Your task to perform on an android device: Go to calendar. Show me events next week Image 0: 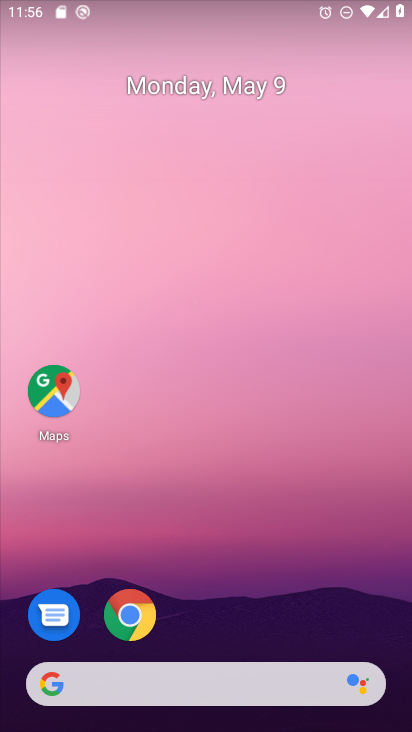
Step 0: drag from (249, 706) to (392, 188)
Your task to perform on an android device: Go to calendar. Show me events next week Image 1: 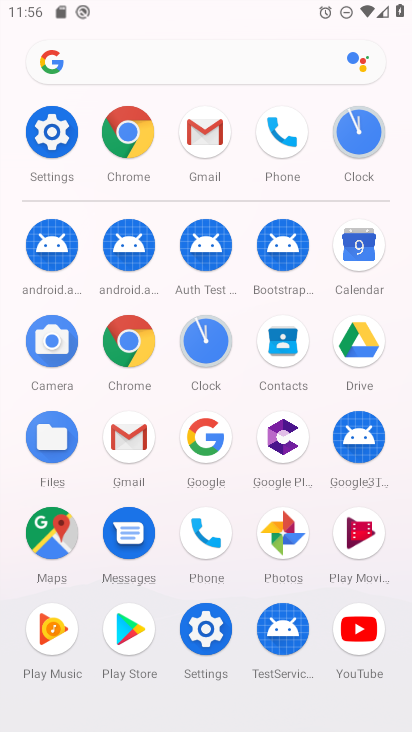
Step 1: click (345, 263)
Your task to perform on an android device: Go to calendar. Show me events next week Image 2: 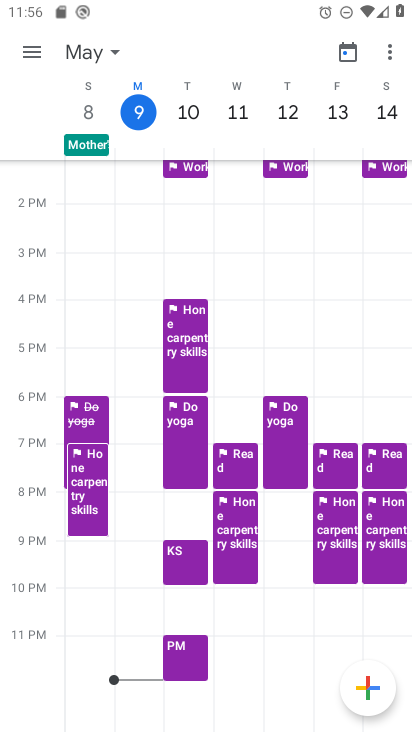
Step 2: click (30, 46)
Your task to perform on an android device: Go to calendar. Show me events next week Image 3: 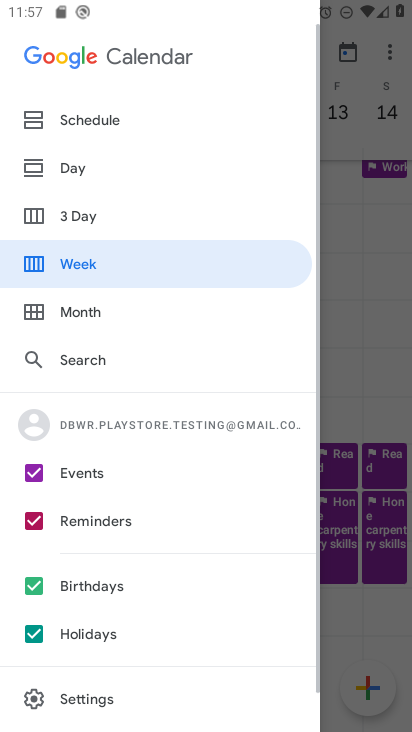
Step 3: click (96, 122)
Your task to perform on an android device: Go to calendar. Show me events next week Image 4: 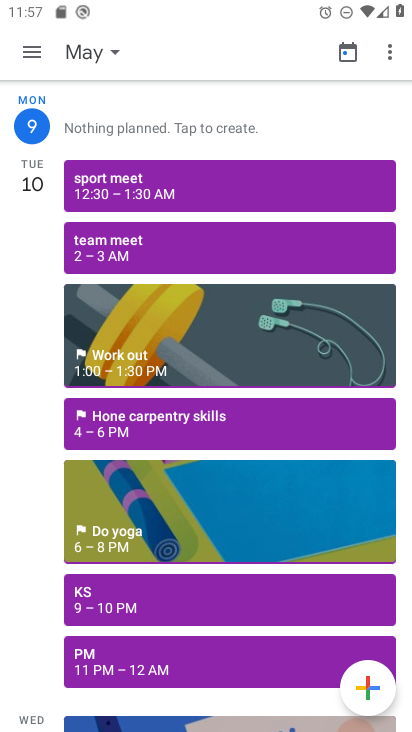
Step 4: task complete